Your task to perform on an android device: Open Google Chrome Image 0: 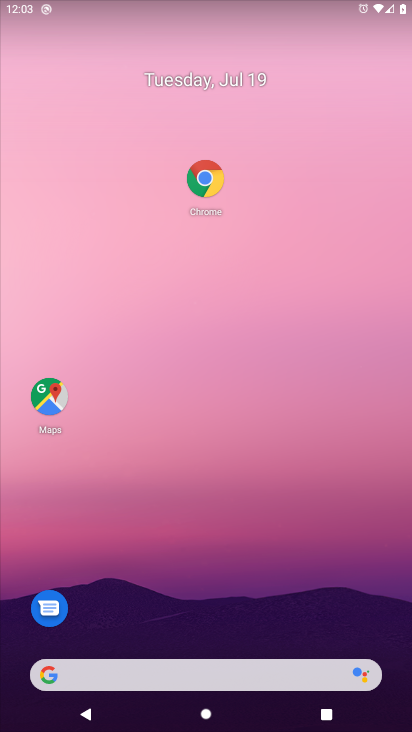
Step 0: click (214, 183)
Your task to perform on an android device: Open Google Chrome Image 1: 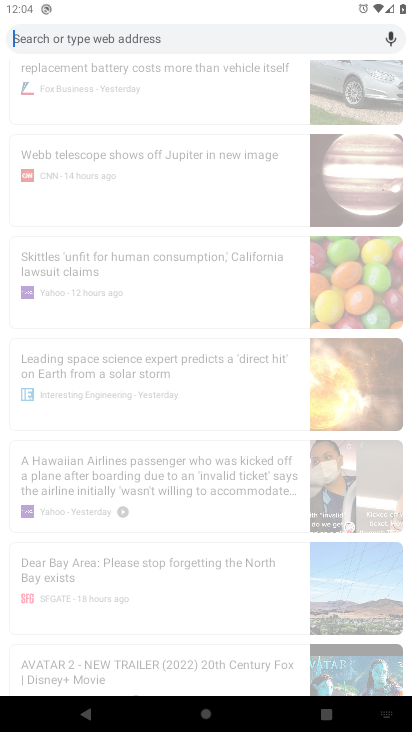
Step 1: task complete